Your task to perform on an android device: Go to notification settings Image 0: 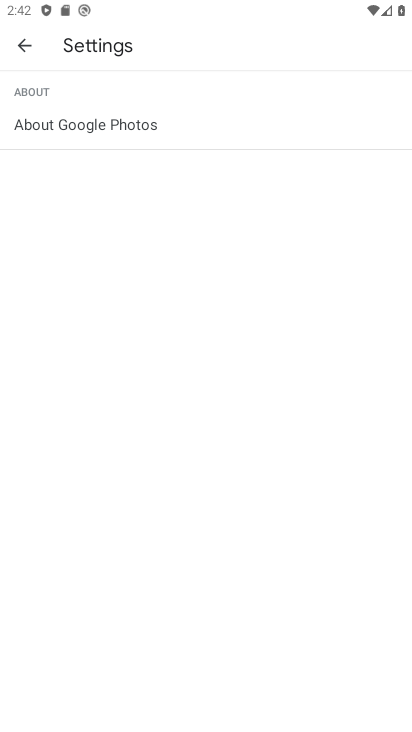
Step 0: press home button
Your task to perform on an android device: Go to notification settings Image 1: 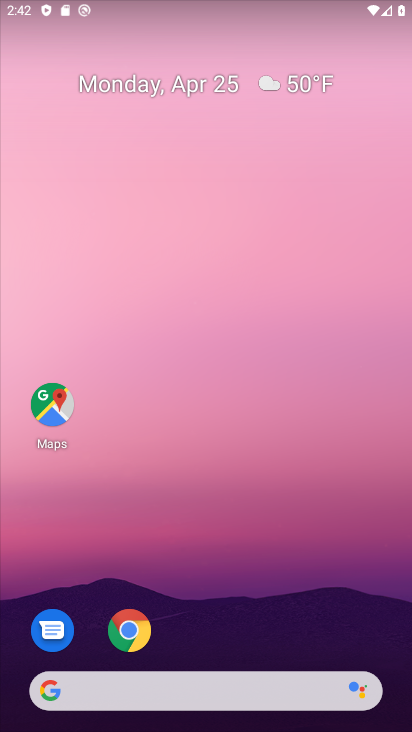
Step 1: drag from (226, 609) to (68, 86)
Your task to perform on an android device: Go to notification settings Image 2: 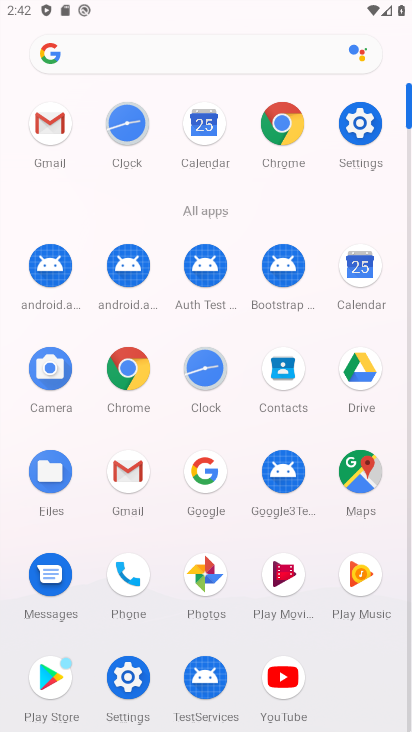
Step 2: click (360, 130)
Your task to perform on an android device: Go to notification settings Image 3: 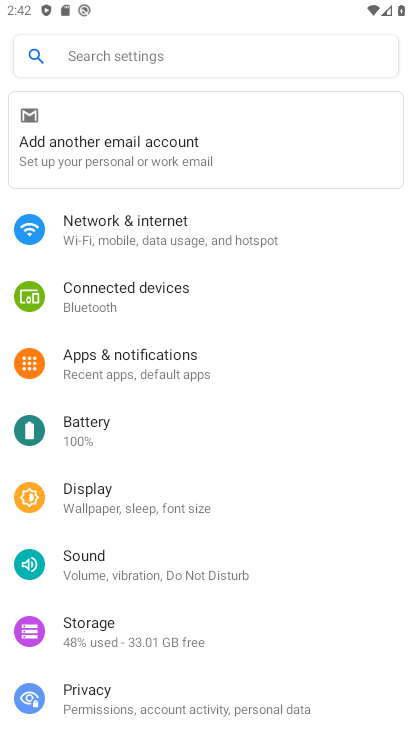
Step 3: click (134, 366)
Your task to perform on an android device: Go to notification settings Image 4: 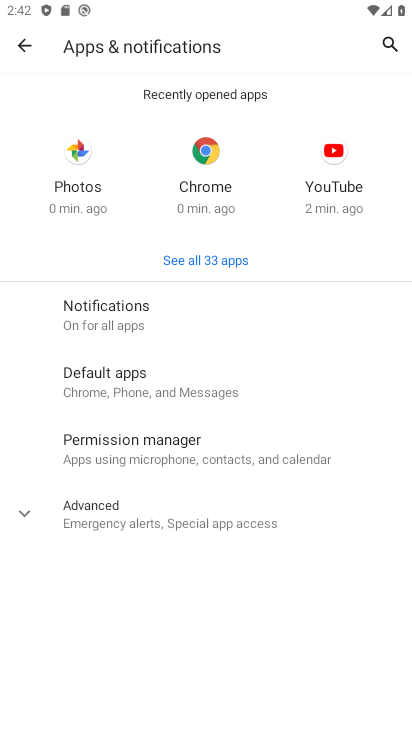
Step 4: click (131, 321)
Your task to perform on an android device: Go to notification settings Image 5: 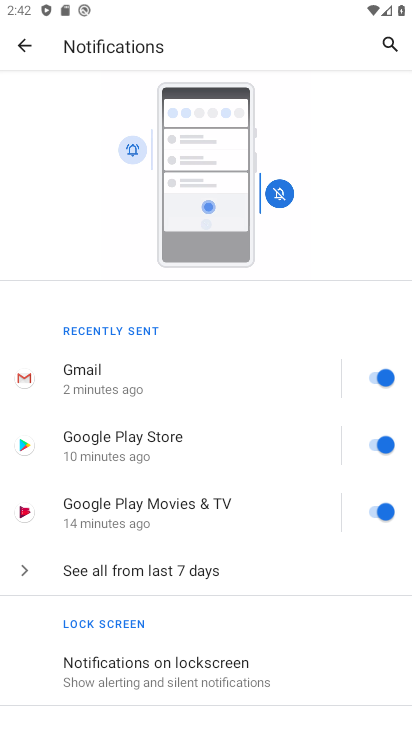
Step 5: drag from (144, 622) to (150, 245)
Your task to perform on an android device: Go to notification settings Image 6: 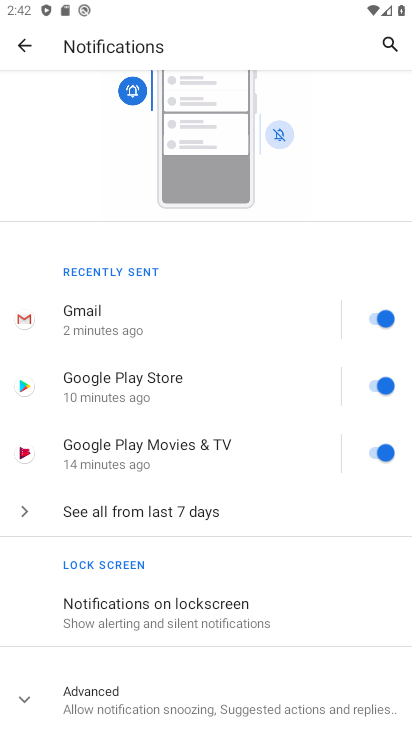
Step 6: click (103, 698)
Your task to perform on an android device: Go to notification settings Image 7: 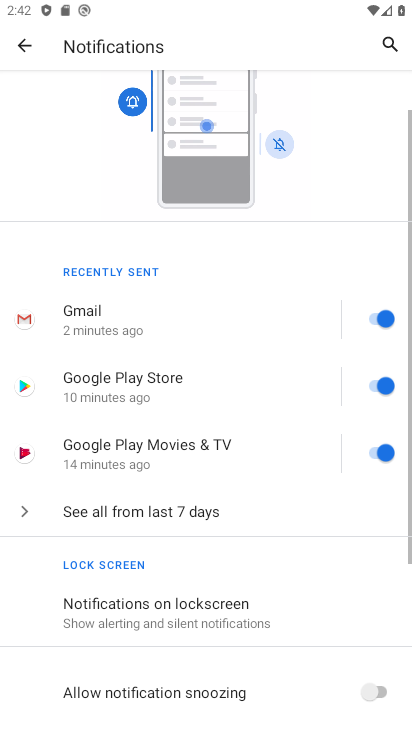
Step 7: task complete